Your task to perform on an android device: Open Chrome and go to settings Image 0: 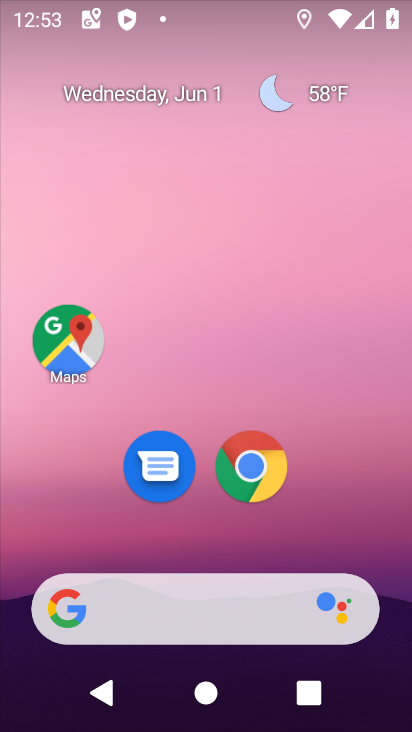
Step 0: click (273, 476)
Your task to perform on an android device: Open Chrome and go to settings Image 1: 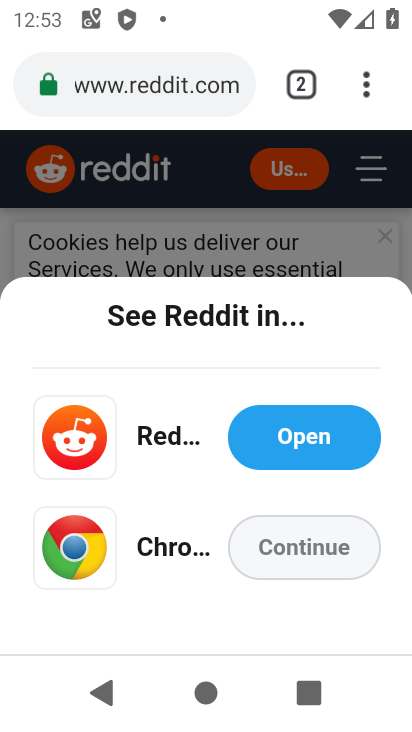
Step 1: click (374, 97)
Your task to perform on an android device: Open Chrome and go to settings Image 2: 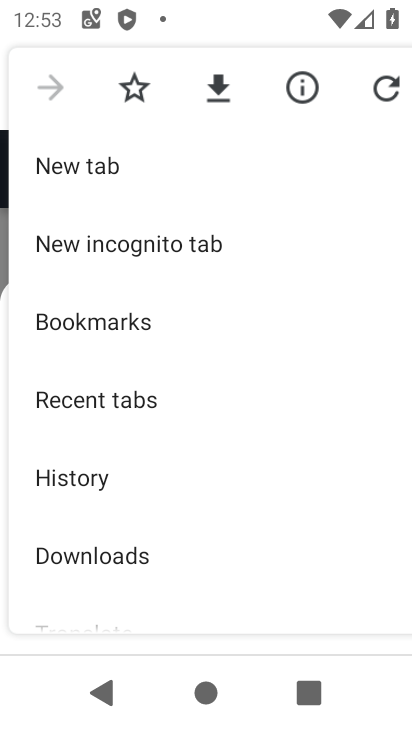
Step 2: drag from (195, 599) to (142, 263)
Your task to perform on an android device: Open Chrome and go to settings Image 3: 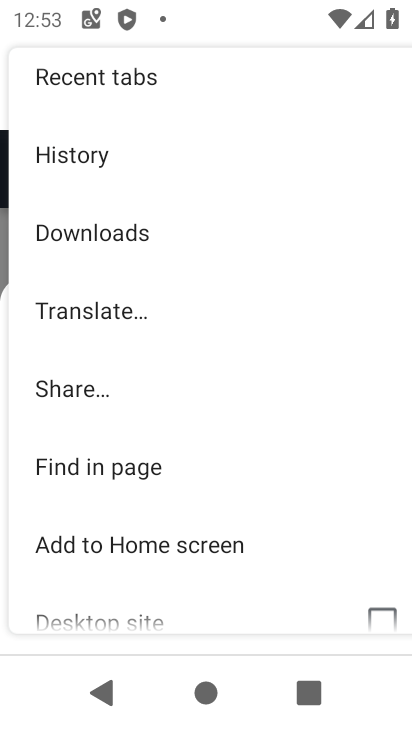
Step 3: drag from (161, 586) to (130, 314)
Your task to perform on an android device: Open Chrome and go to settings Image 4: 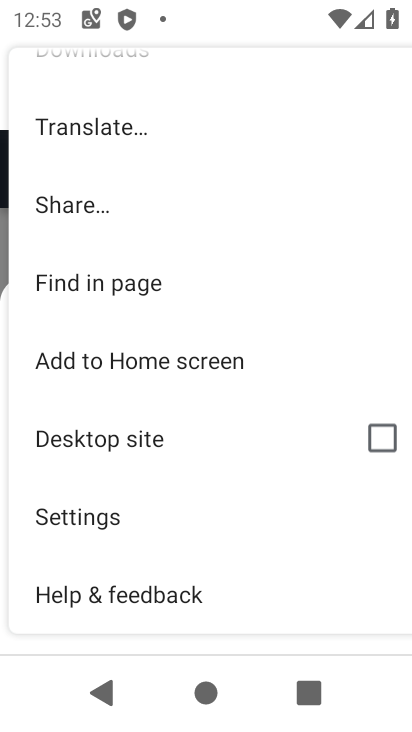
Step 4: click (125, 519)
Your task to perform on an android device: Open Chrome and go to settings Image 5: 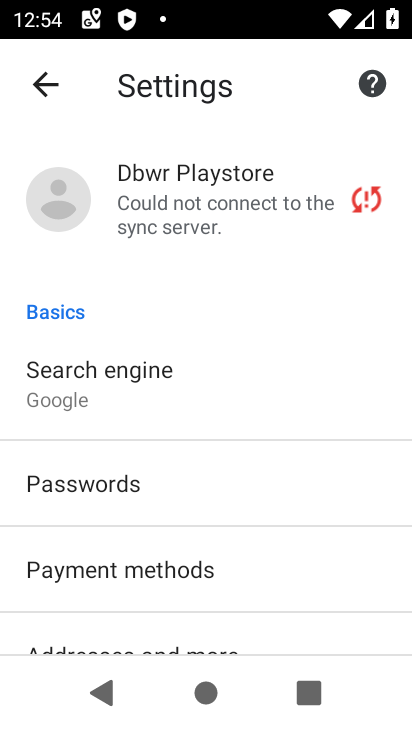
Step 5: task complete